Your task to perform on an android device: change the clock display to digital Image 0: 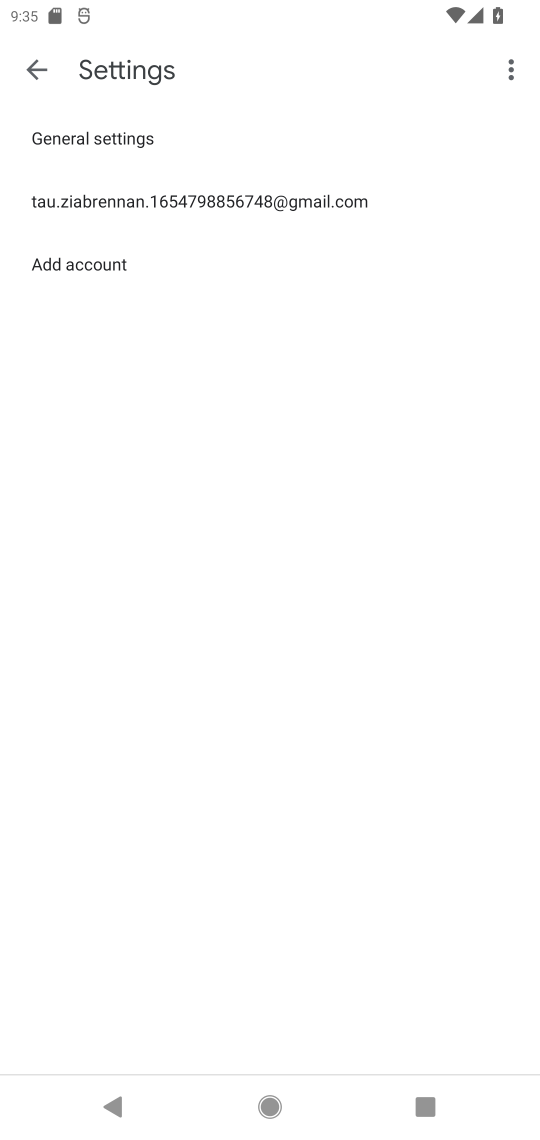
Step 0: press home button
Your task to perform on an android device: change the clock display to digital Image 1: 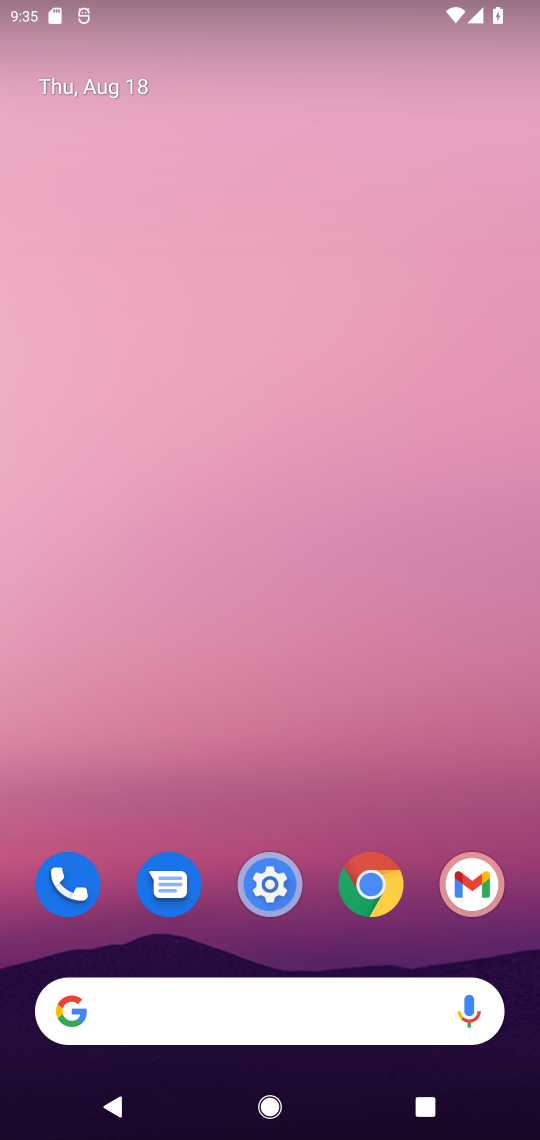
Step 1: drag from (212, 954) to (215, 113)
Your task to perform on an android device: change the clock display to digital Image 2: 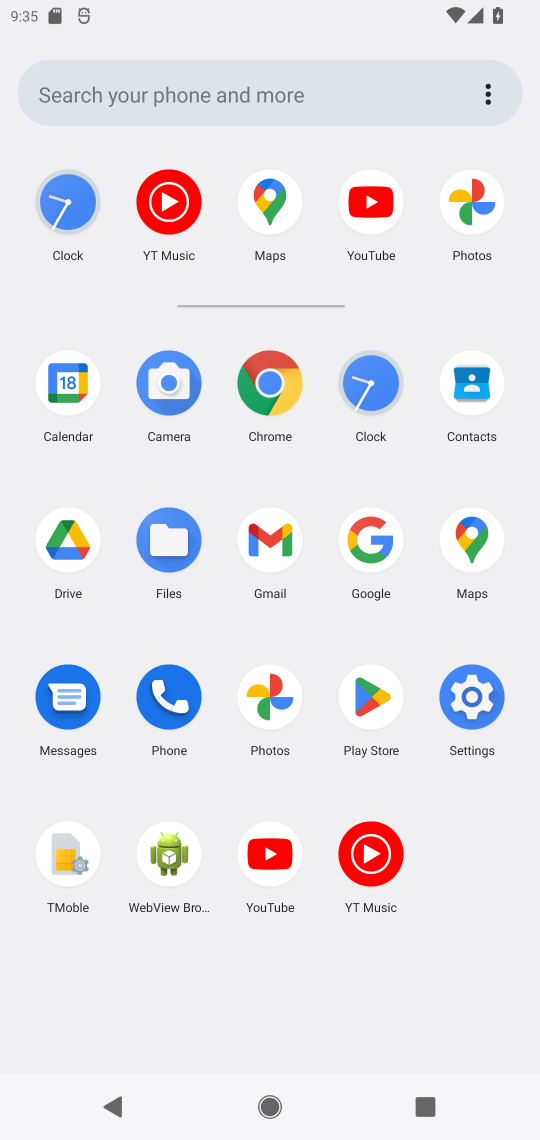
Step 2: click (383, 380)
Your task to perform on an android device: change the clock display to digital Image 3: 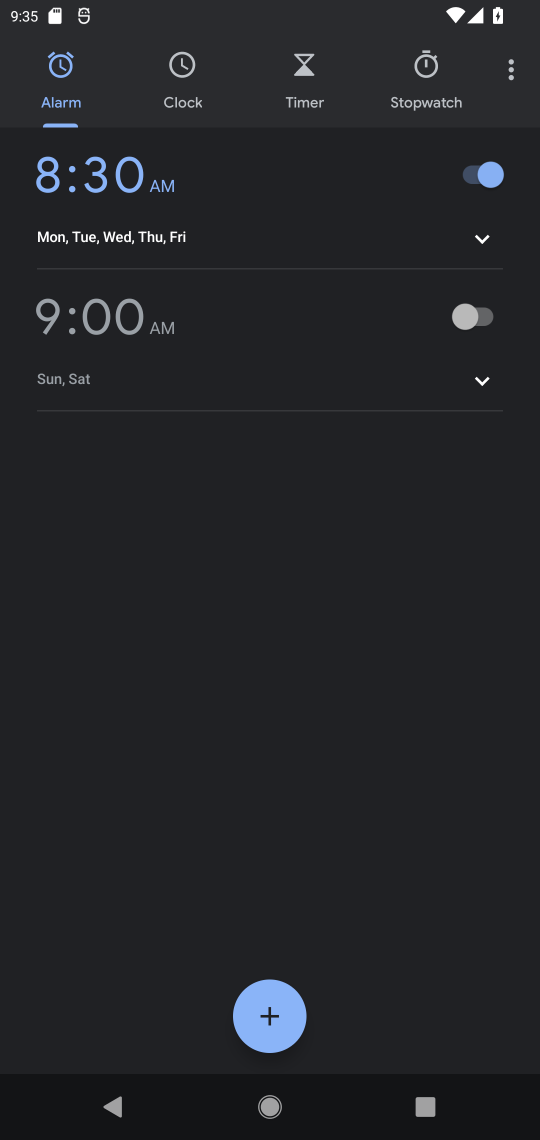
Step 3: click (523, 67)
Your task to perform on an android device: change the clock display to digital Image 4: 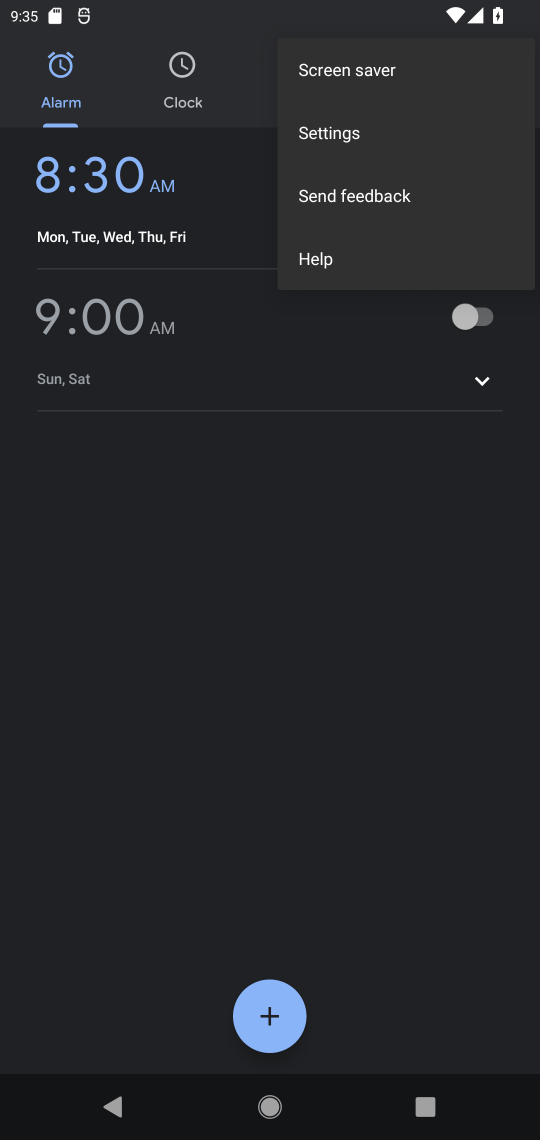
Step 4: click (419, 129)
Your task to perform on an android device: change the clock display to digital Image 5: 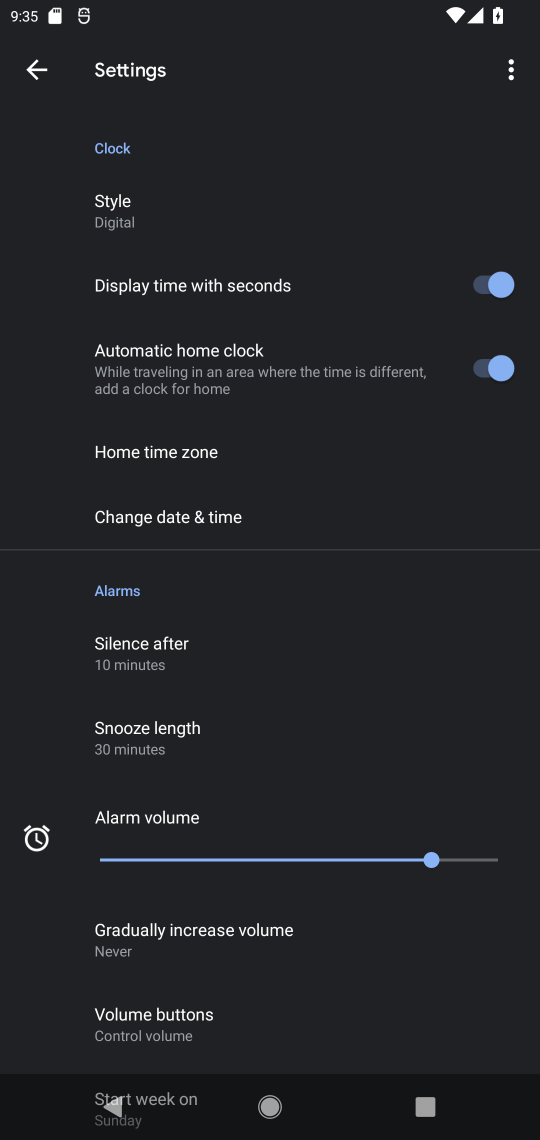
Step 5: task complete